Your task to perform on an android device: manage bookmarks in the chrome app Image 0: 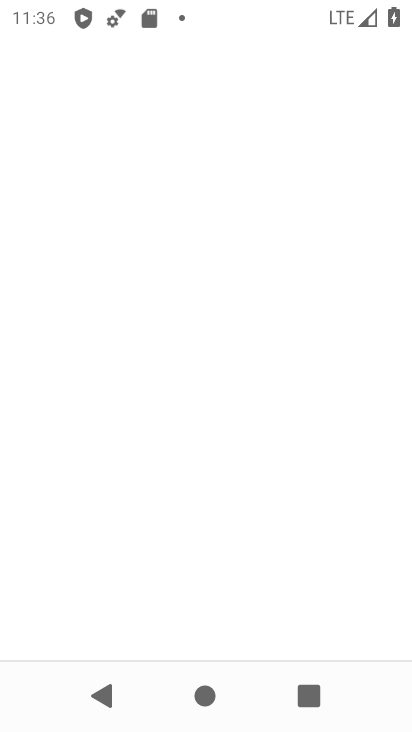
Step 0: drag from (304, 564) to (241, 187)
Your task to perform on an android device: manage bookmarks in the chrome app Image 1: 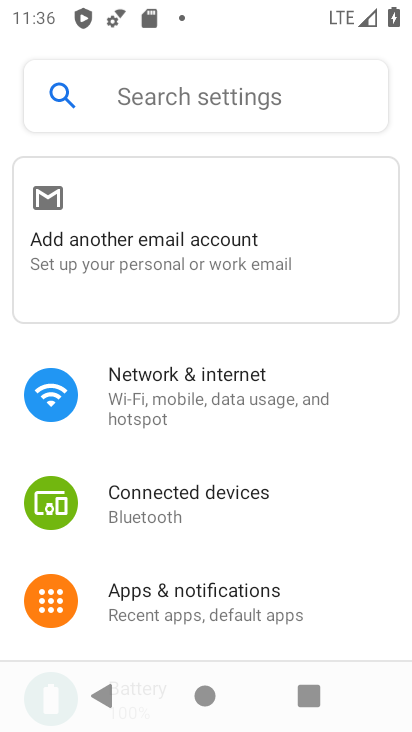
Step 1: press home button
Your task to perform on an android device: manage bookmarks in the chrome app Image 2: 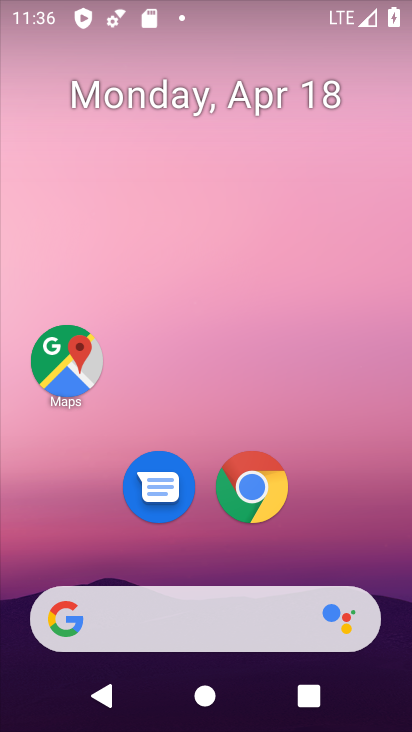
Step 2: click (268, 483)
Your task to perform on an android device: manage bookmarks in the chrome app Image 3: 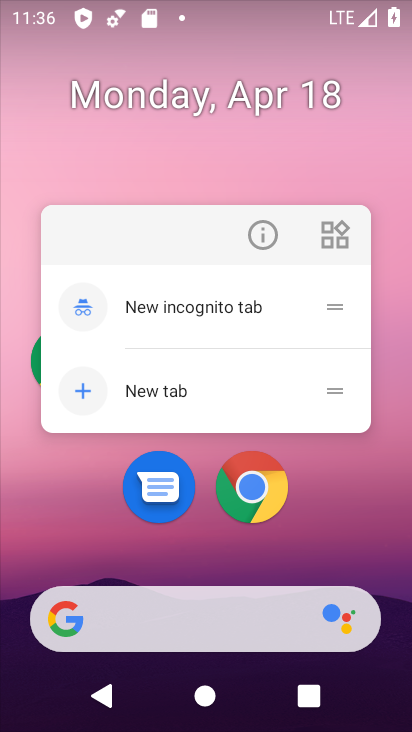
Step 3: click (252, 484)
Your task to perform on an android device: manage bookmarks in the chrome app Image 4: 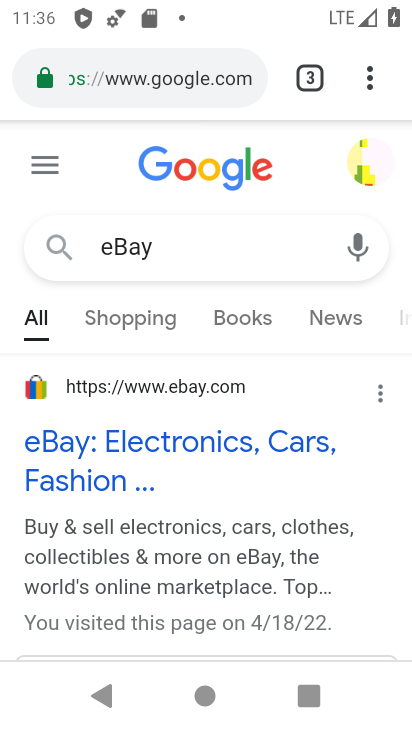
Step 4: click (362, 70)
Your task to perform on an android device: manage bookmarks in the chrome app Image 5: 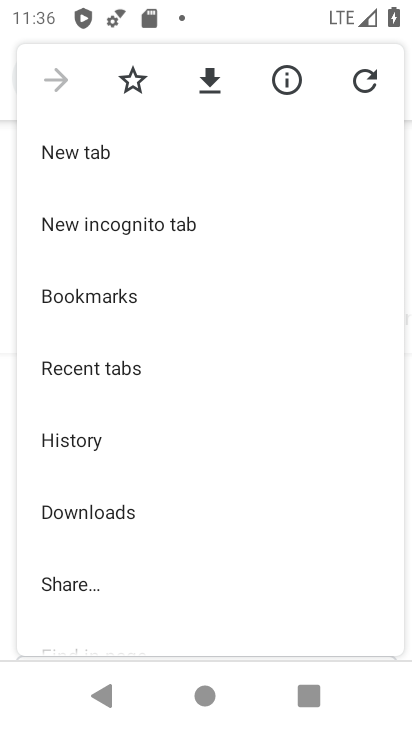
Step 5: click (88, 289)
Your task to perform on an android device: manage bookmarks in the chrome app Image 6: 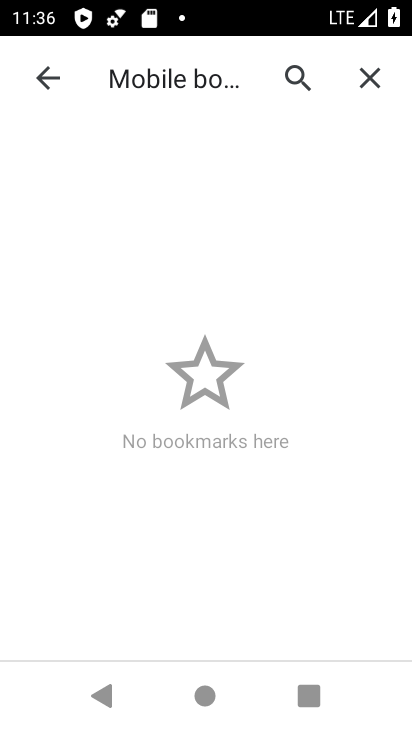
Step 6: task complete